Your task to perform on an android device: Go to Google Image 0: 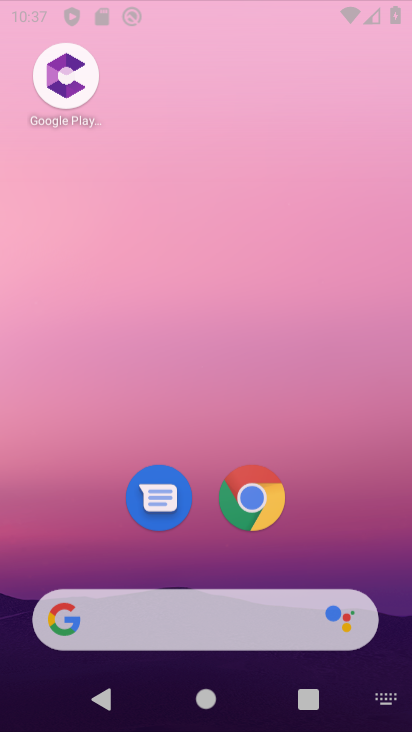
Step 0: click (168, 52)
Your task to perform on an android device: Go to Google Image 1: 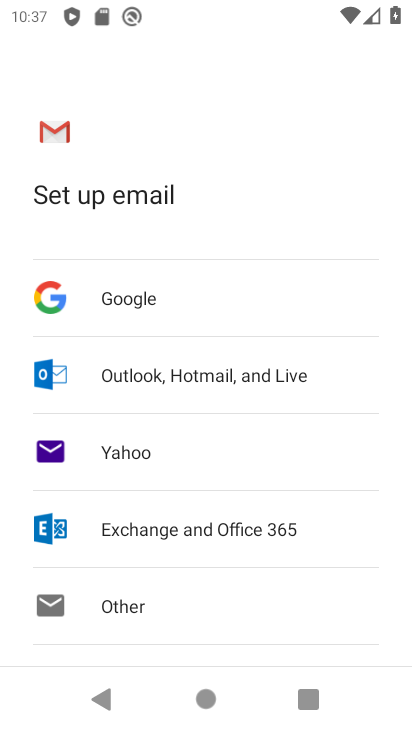
Step 1: press back button
Your task to perform on an android device: Go to Google Image 2: 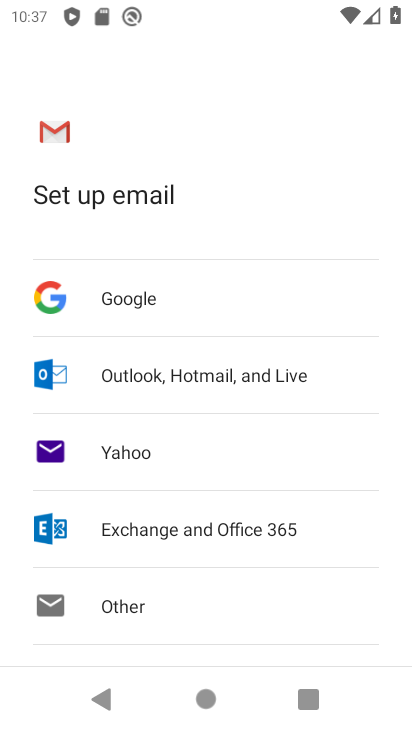
Step 2: press back button
Your task to perform on an android device: Go to Google Image 3: 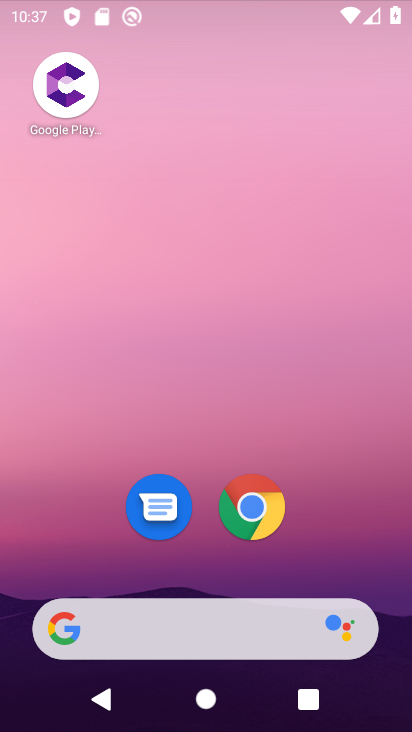
Step 3: press back button
Your task to perform on an android device: Go to Google Image 4: 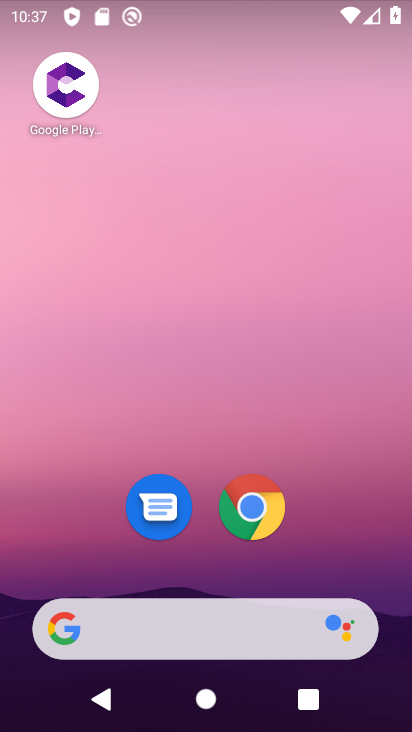
Step 4: drag from (337, 308) to (201, 18)
Your task to perform on an android device: Go to Google Image 5: 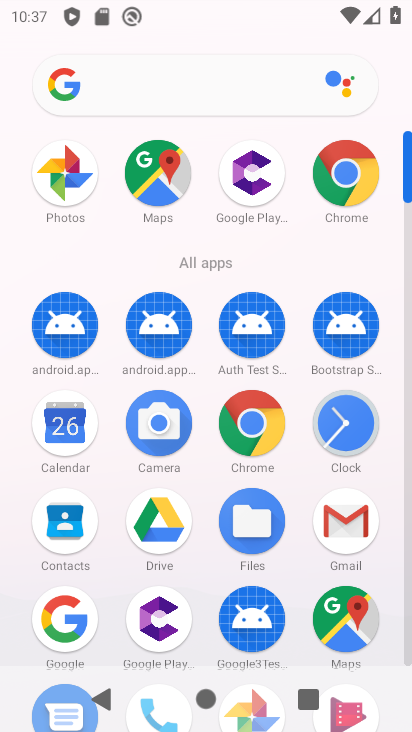
Step 5: click (157, 175)
Your task to perform on an android device: Go to Google Image 6: 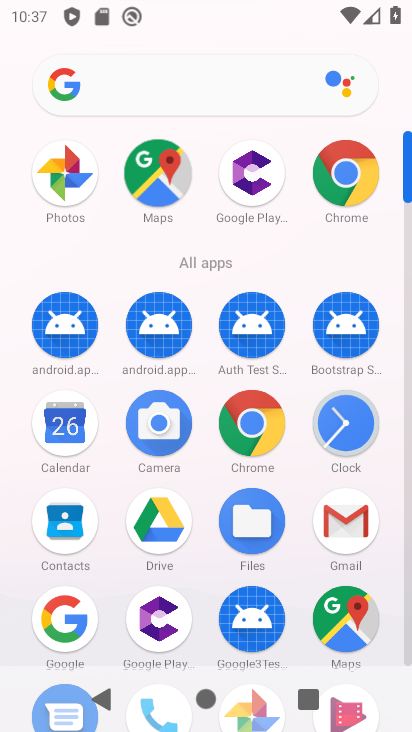
Step 6: click (173, 168)
Your task to perform on an android device: Go to Google Image 7: 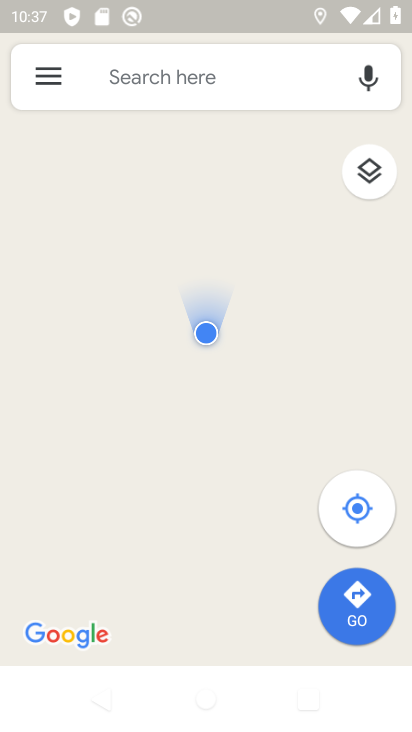
Step 7: task complete